Your task to perform on an android device: Open ESPN.com Image 0: 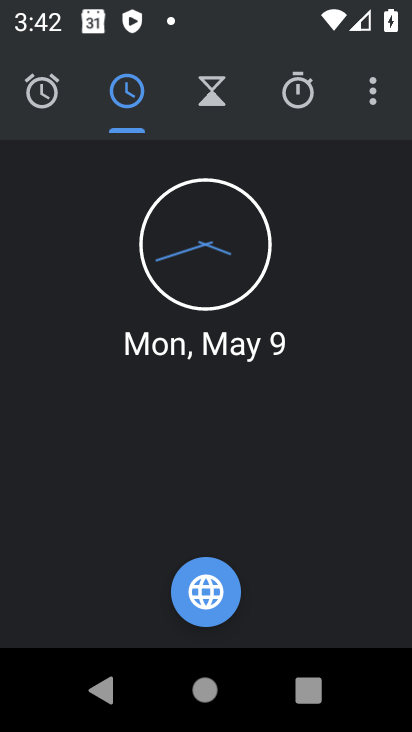
Step 0: press home button
Your task to perform on an android device: Open ESPN.com Image 1: 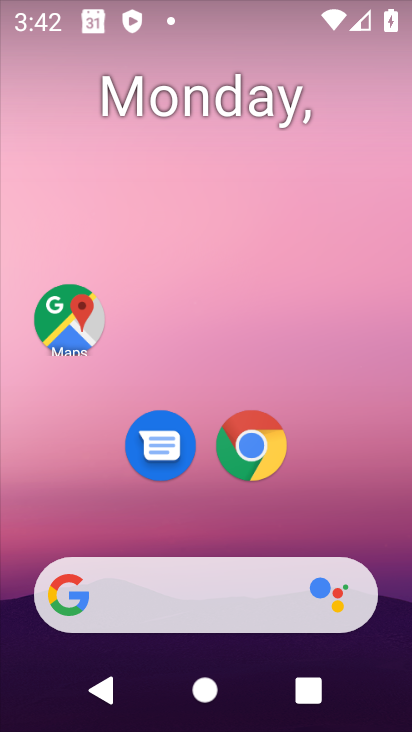
Step 1: click (262, 442)
Your task to perform on an android device: Open ESPN.com Image 2: 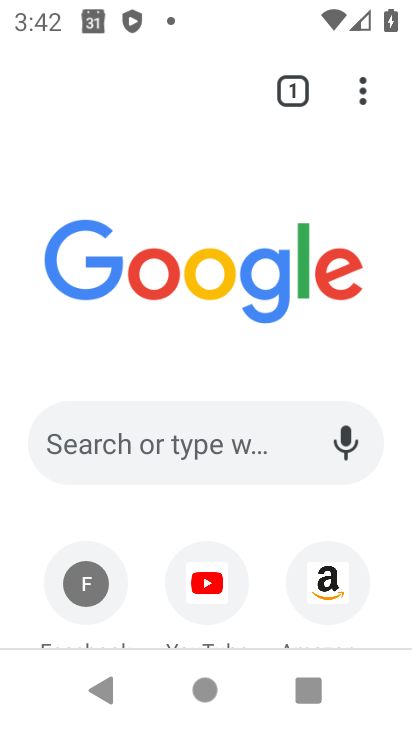
Step 2: drag from (271, 540) to (315, 253)
Your task to perform on an android device: Open ESPN.com Image 3: 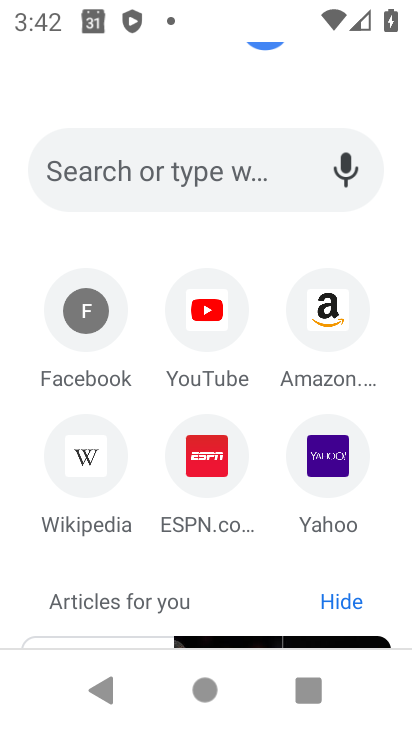
Step 3: click (186, 468)
Your task to perform on an android device: Open ESPN.com Image 4: 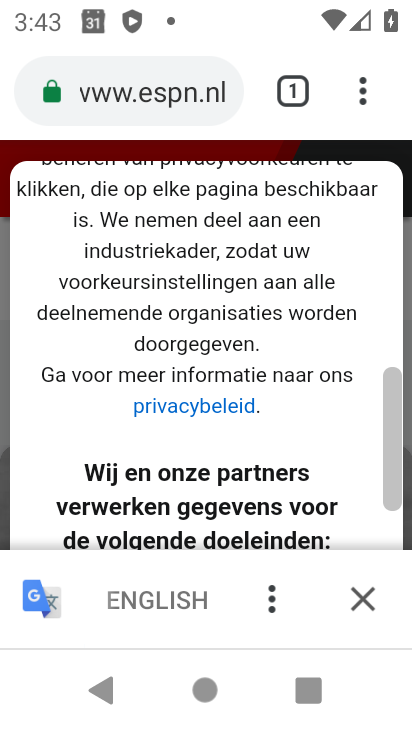
Step 4: task complete